Your task to perform on an android device: set the timer Image 0: 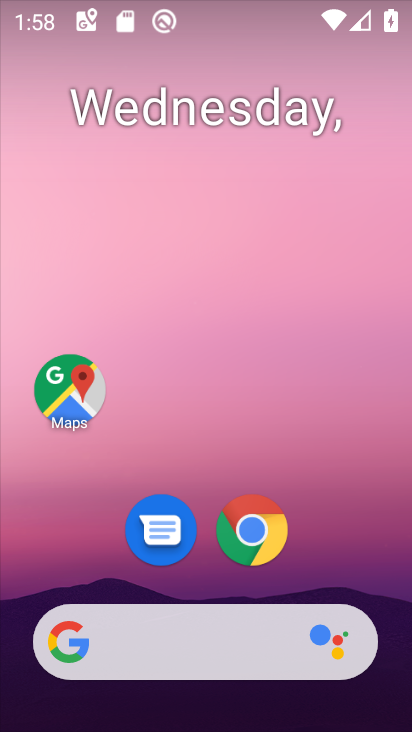
Step 0: drag from (348, 533) to (348, 260)
Your task to perform on an android device: set the timer Image 1: 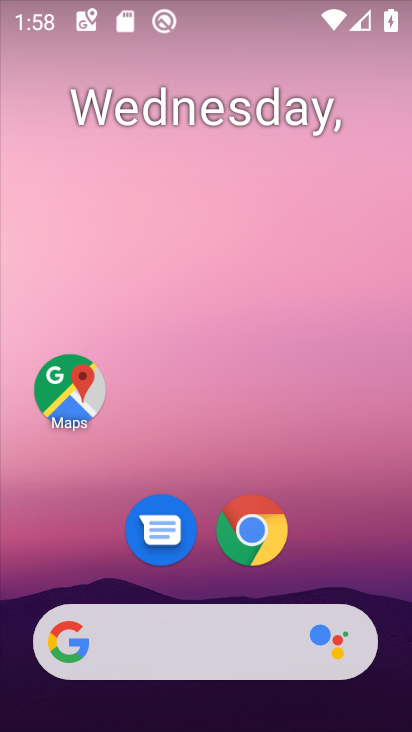
Step 1: drag from (319, 394) to (328, 272)
Your task to perform on an android device: set the timer Image 2: 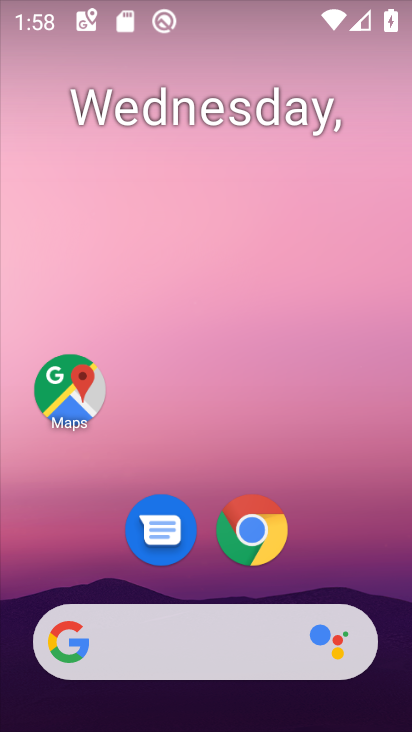
Step 2: drag from (321, 570) to (285, 113)
Your task to perform on an android device: set the timer Image 3: 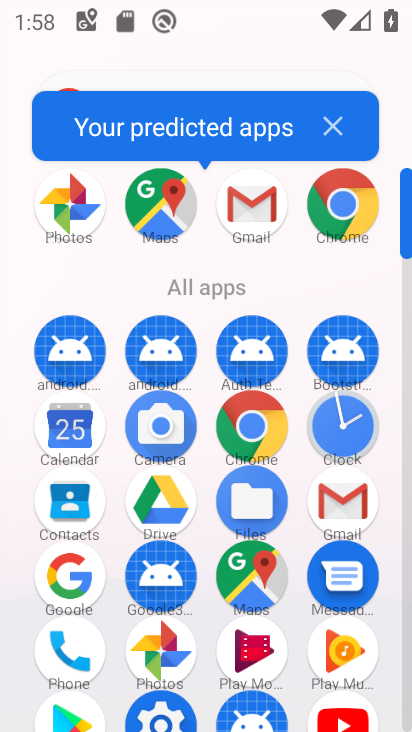
Step 3: click (328, 421)
Your task to perform on an android device: set the timer Image 4: 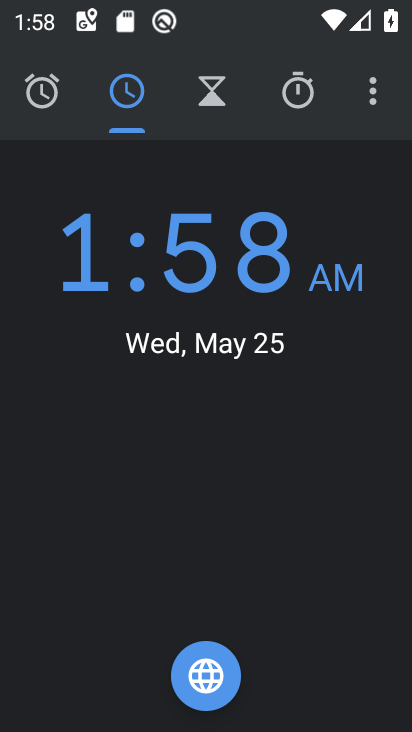
Step 4: click (210, 92)
Your task to perform on an android device: set the timer Image 5: 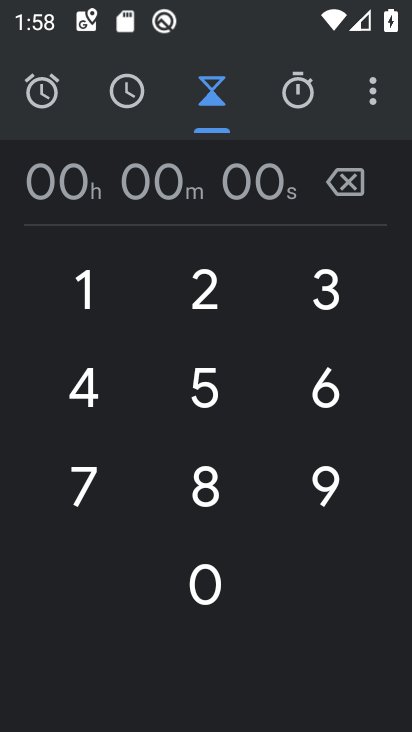
Step 5: click (146, 159)
Your task to perform on an android device: set the timer Image 6: 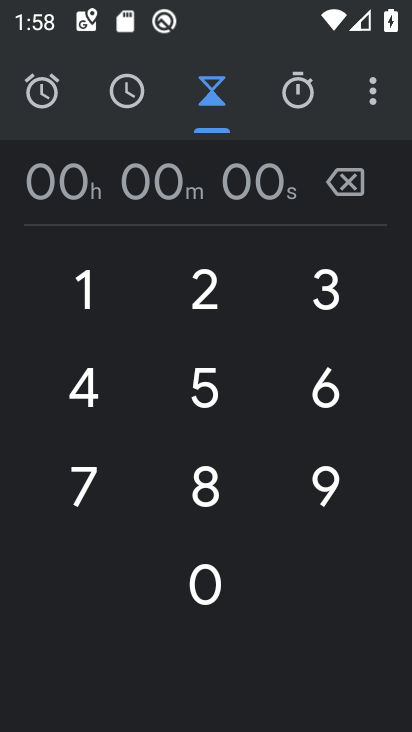
Step 6: type "997979878"
Your task to perform on an android device: set the timer Image 7: 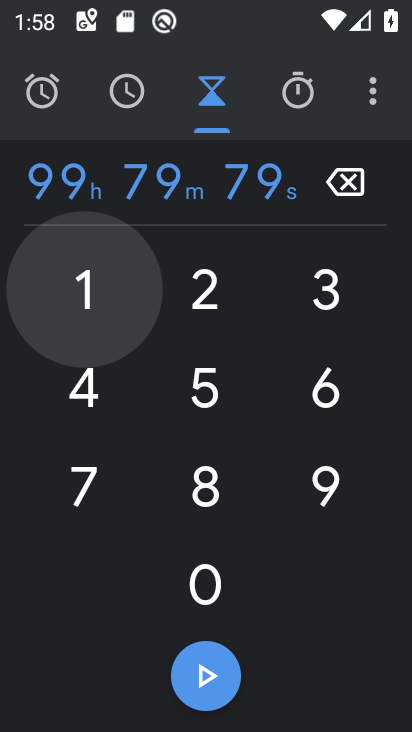
Step 7: click (197, 683)
Your task to perform on an android device: set the timer Image 8: 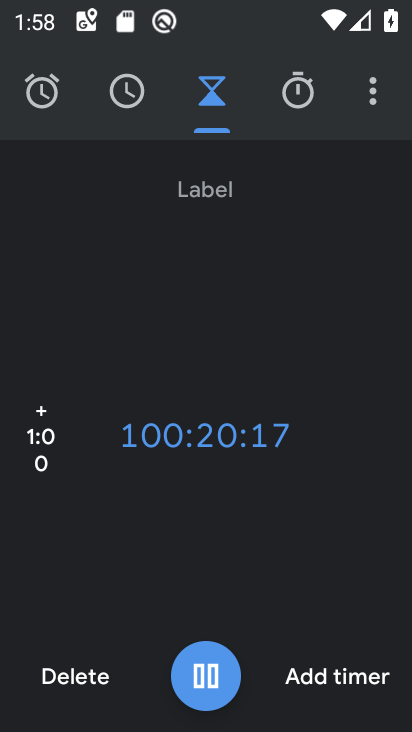
Step 8: task complete